Your task to perform on an android device: Open the map Image 0: 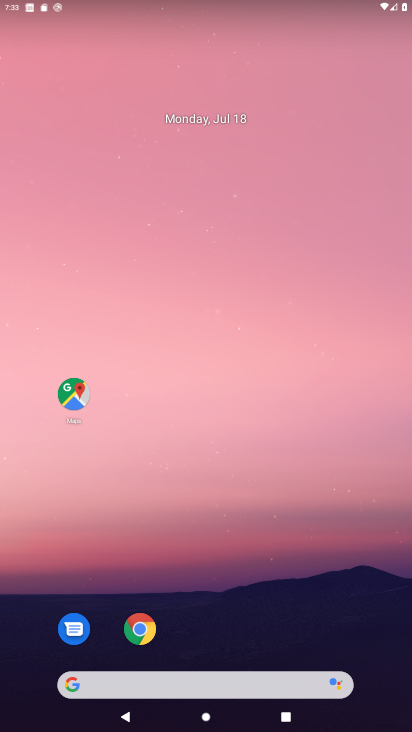
Step 0: click (60, 410)
Your task to perform on an android device: Open the map Image 1: 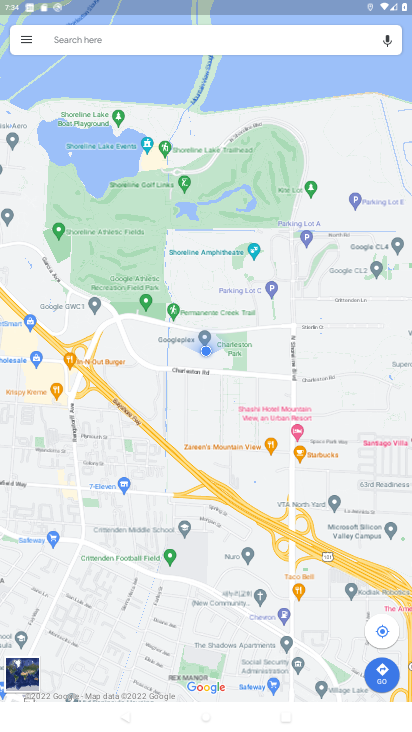
Step 1: task complete